Your task to perform on an android device: clear history in the chrome app Image 0: 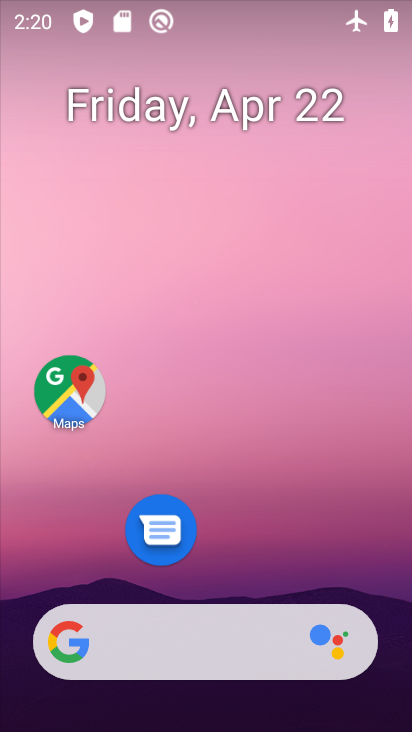
Step 0: drag from (193, 379) to (222, 12)
Your task to perform on an android device: clear history in the chrome app Image 1: 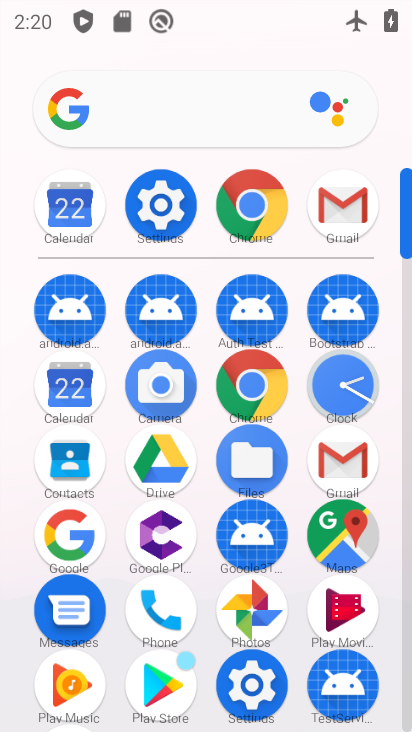
Step 1: click (236, 211)
Your task to perform on an android device: clear history in the chrome app Image 2: 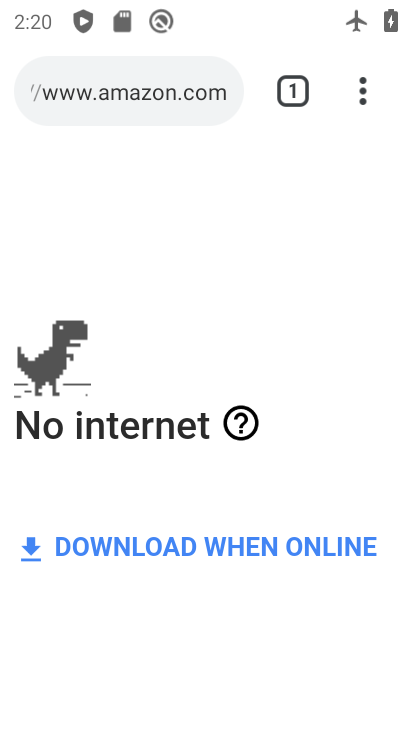
Step 2: click (358, 99)
Your task to perform on an android device: clear history in the chrome app Image 3: 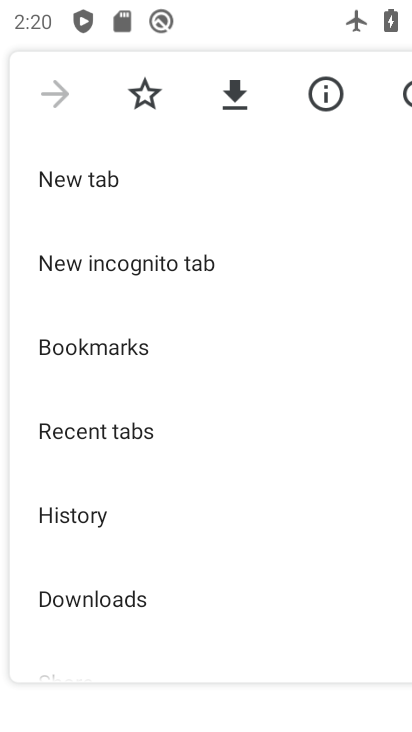
Step 3: click (75, 518)
Your task to perform on an android device: clear history in the chrome app Image 4: 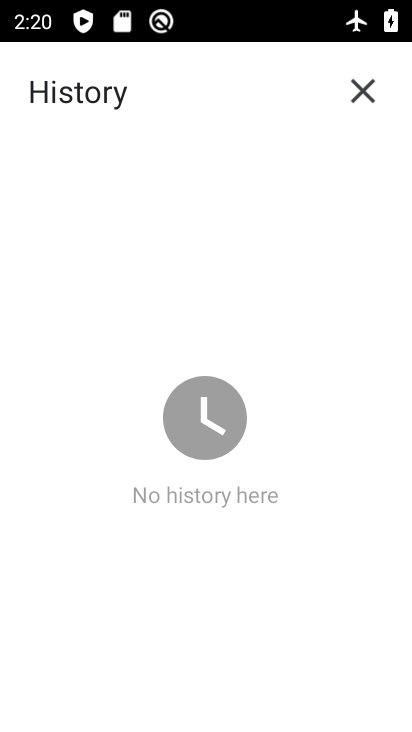
Step 4: task complete